Your task to perform on an android device: check android version Image 0: 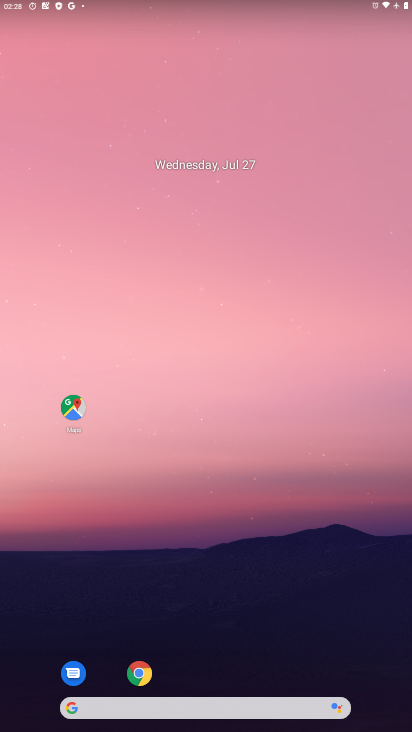
Step 0: drag from (203, 676) to (233, 0)
Your task to perform on an android device: check android version Image 1: 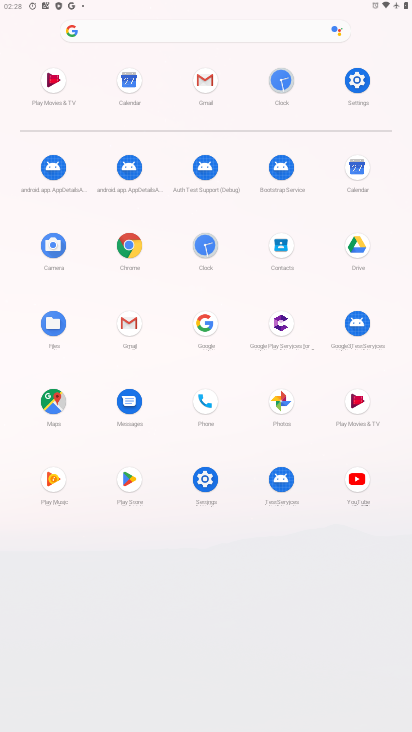
Step 1: click (361, 92)
Your task to perform on an android device: check android version Image 2: 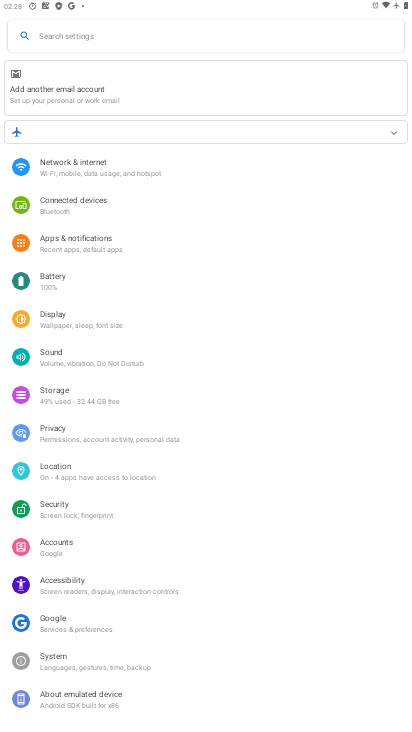
Step 2: click (88, 701)
Your task to perform on an android device: check android version Image 3: 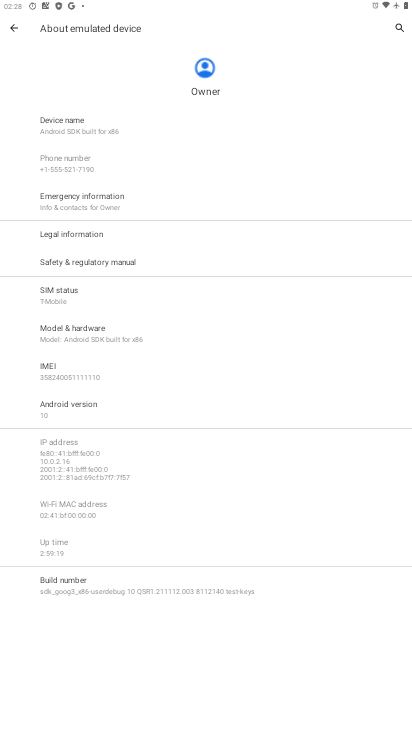
Step 3: click (73, 406)
Your task to perform on an android device: check android version Image 4: 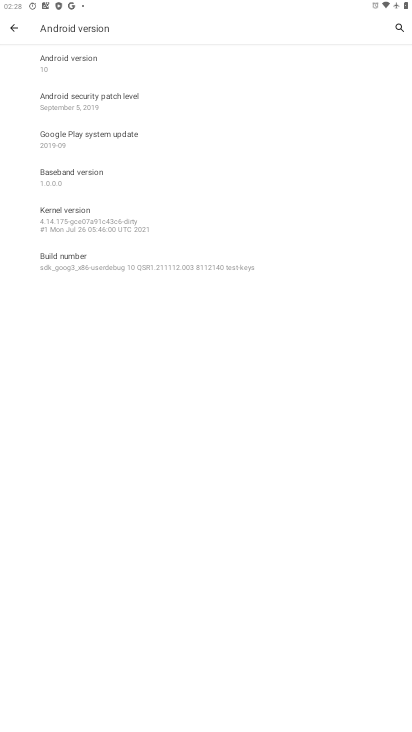
Step 4: task complete